Your task to perform on an android device: change notification settings in the gmail app Image 0: 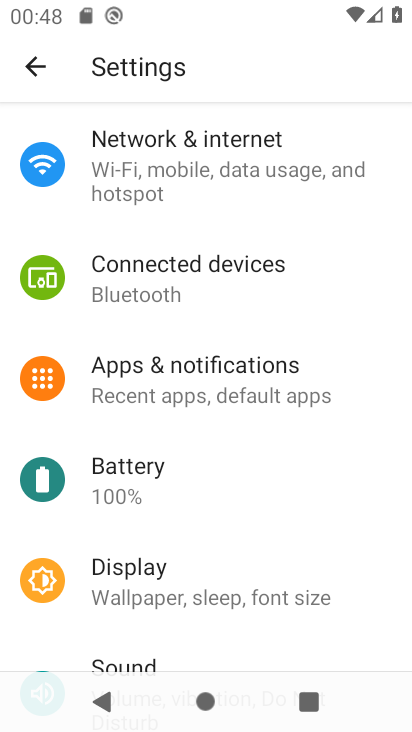
Step 0: click (262, 373)
Your task to perform on an android device: change notification settings in the gmail app Image 1: 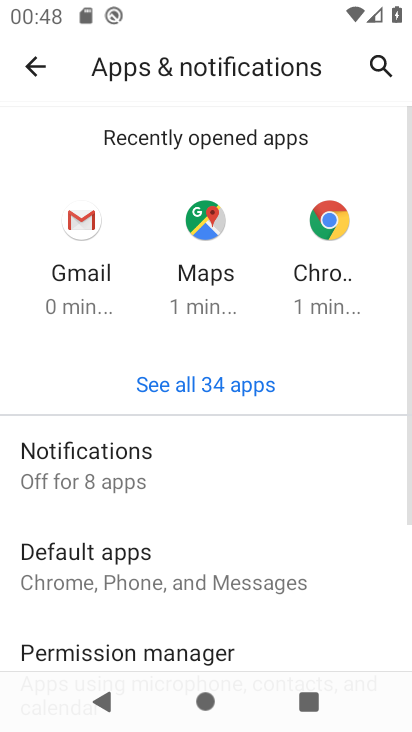
Step 1: click (90, 239)
Your task to perform on an android device: change notification settings in the gmail app Image 2: 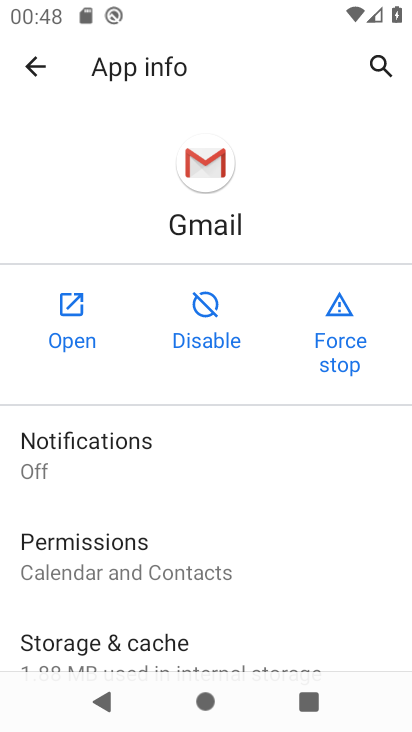
Step 2: click (119, 456)
Your task to perform on an android device: change notification settings in the gmail app Image 3: 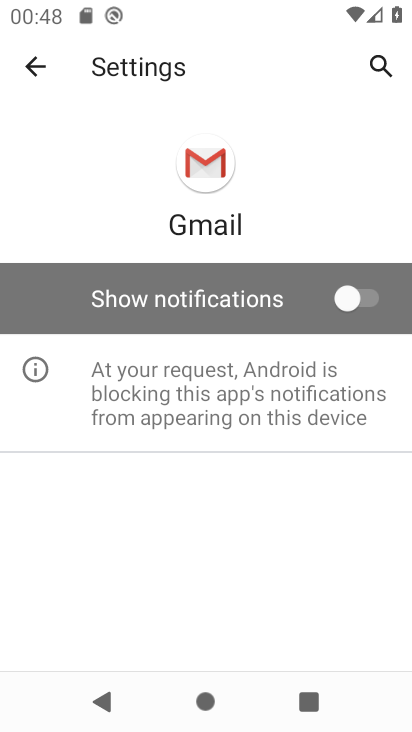
Step 3: click (357, 285)
Your task to perform on an android device: change notification settings in the gmail app Image 4: 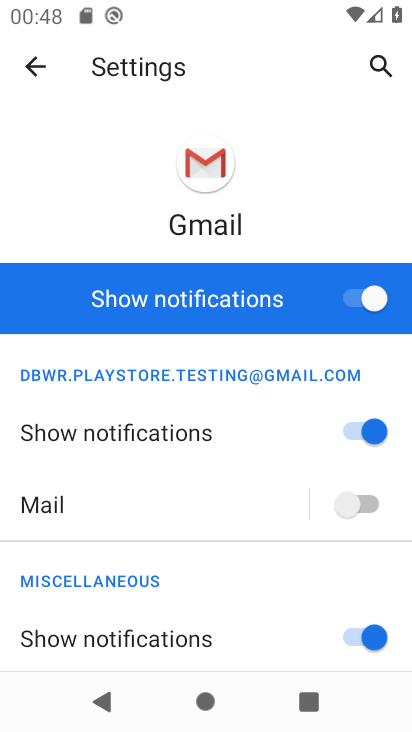
Step 4: task complete